Your task to perform on an android device: Go to Yahoo.com Image 0: 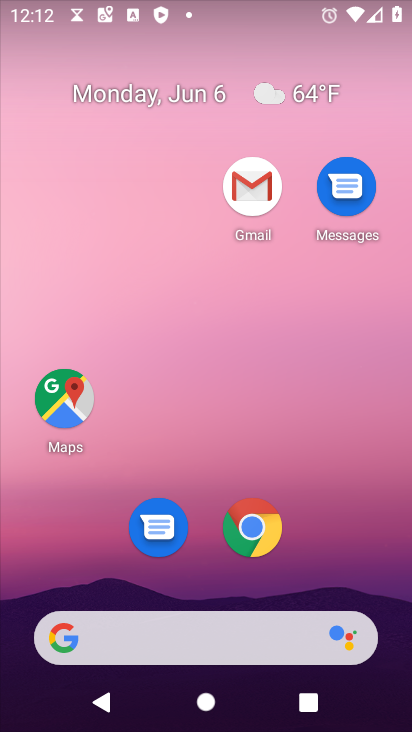
Step 0: click (256, 525)
Your task to perform on an android device: Go to Yahoo.com Image 1: 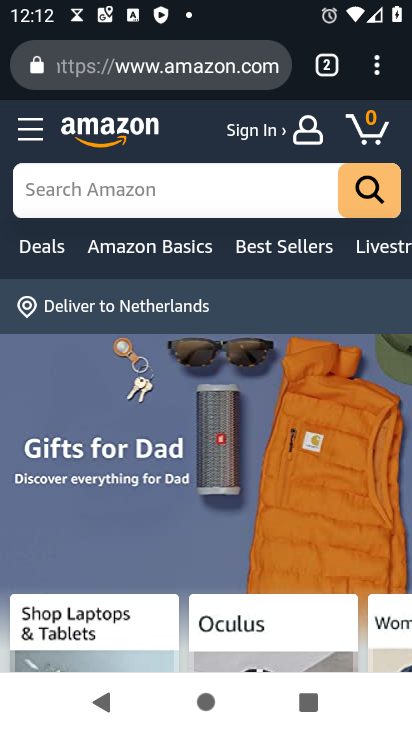
Step 1: click (336, 70)
Your task to perform on an android device: Go to Yahoo.com Image 2: 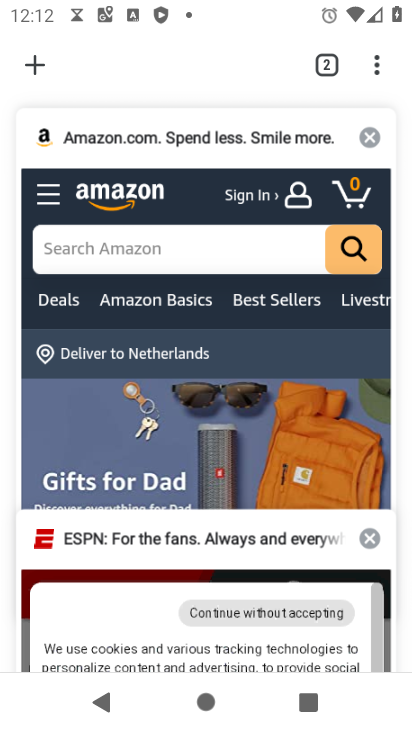
Step 2: click (30, 67)
Your task to perform on an android device: Go to Yahoo.com Image 3: 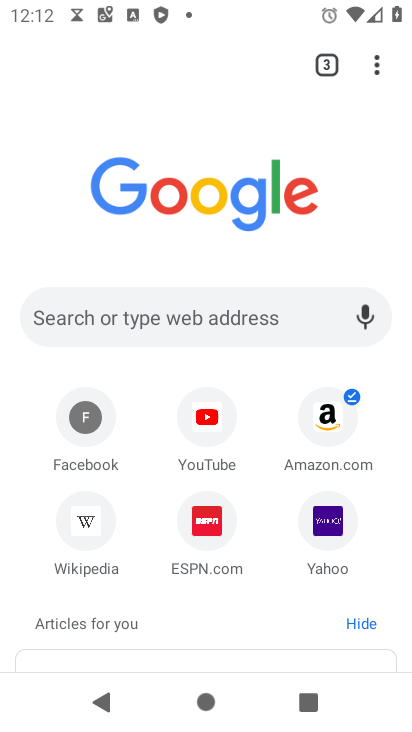
Step 3: click (334, 523)
Your task to perform on an android device: Go to Yahoo.com Image 4: 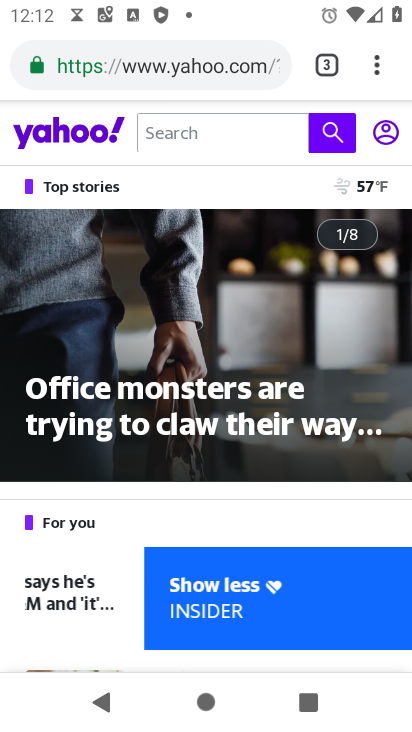
Step 4: task complete